Your task to perform on an android device: turn on javascript in the chrome app Image 0: 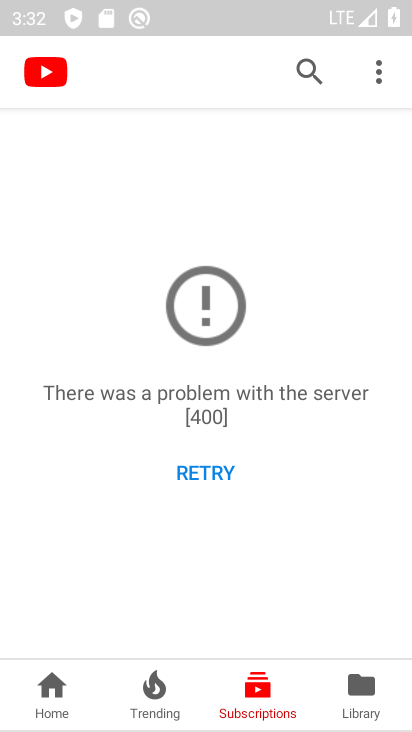
Step 0: press home button
Your task to perform on an android device: turn on javascript in the chrome app Image 1: 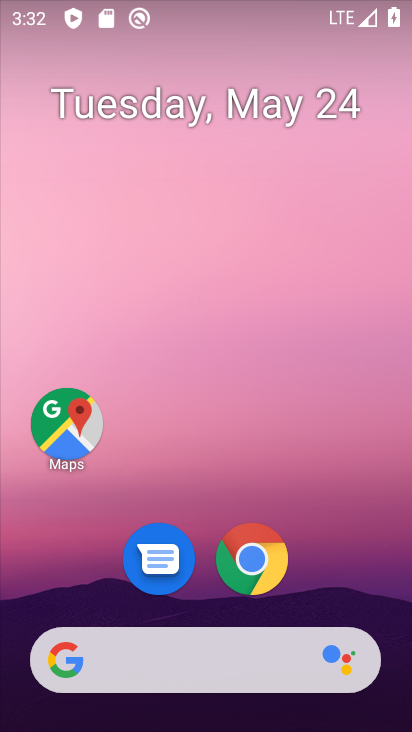
Step 1: click (256, 560)
Your task to perform on an android device: turn on javascript in the chrome app Image 2: 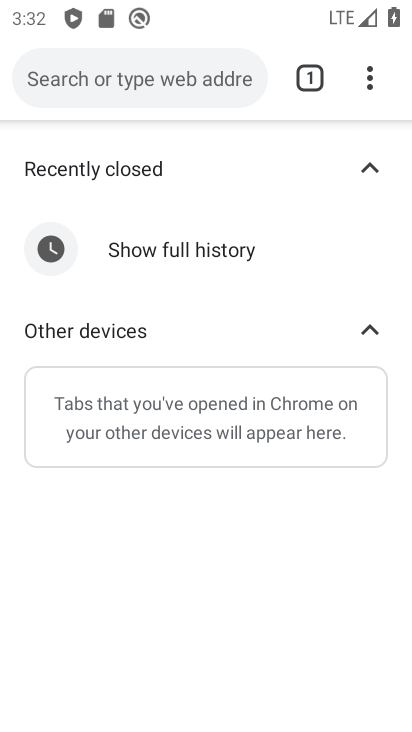
Step 2: click (370, 79)
Your task to perform on an android device: turn on javascript in the chrome app Image 3: 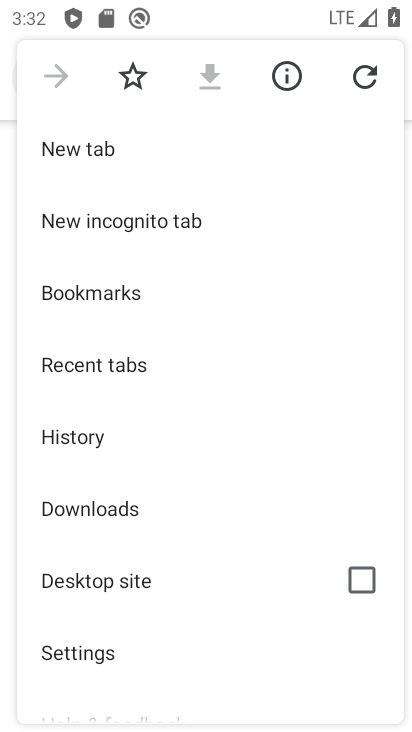
Step 3: click (96, 659)
Your task to perform on an android device: turn on javascript in the chrome app Image 4: 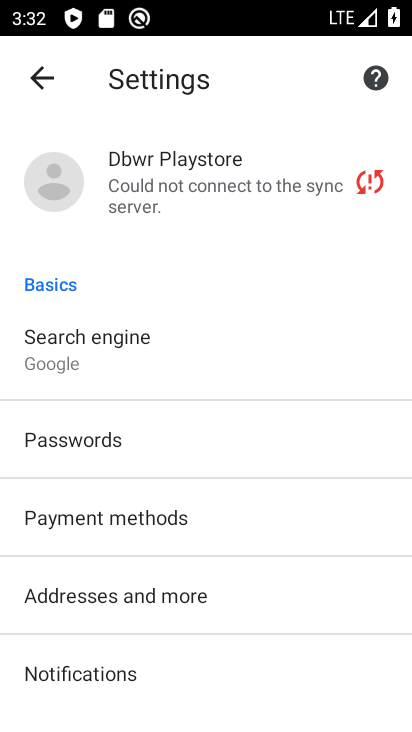
Step 4: drag from (133, 563) to (198, 433)
Your task to perform on an android device: turn on javascript in the chrome app Image 5: 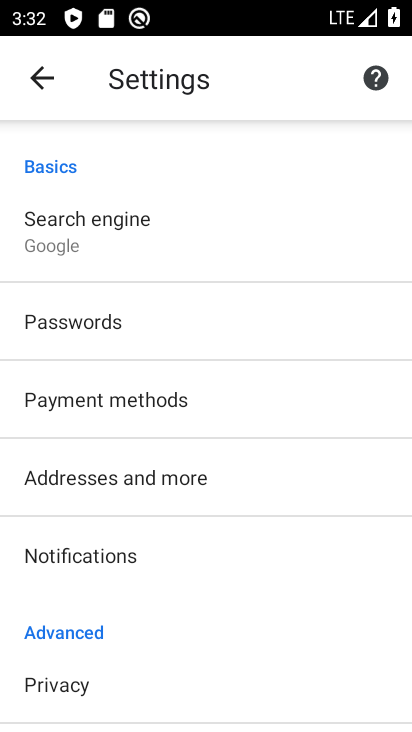
Step 5: drag from (143, 576) to (210, 489)
Your task to perform on an android device: turn on javascript in the chrome app Image 6: 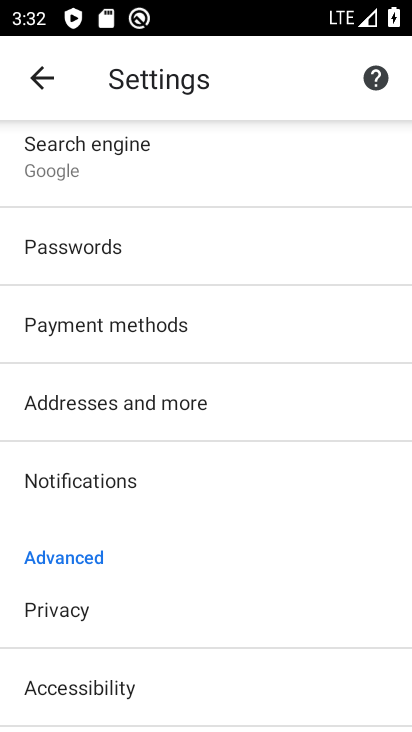
Step 6: drag from (136, 584) to (215, 478)
Your task to perform on an android device: turn on javascript in the chrome app Image 7: 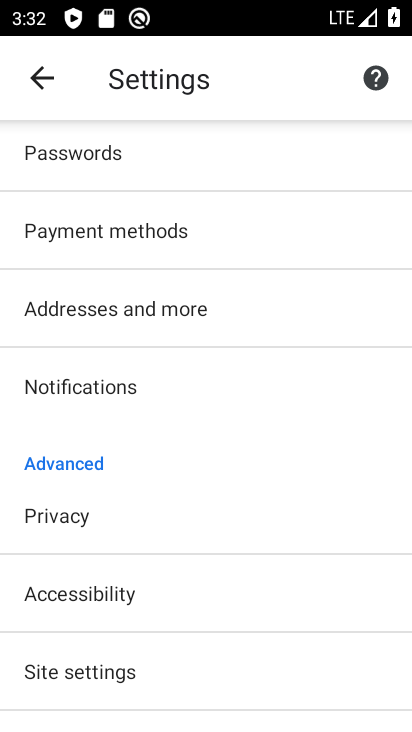
Step 7: drag from (158, 605) to (213, 498)
Your task to perform on an android device: turn on javascript in the chrome app Image 8: 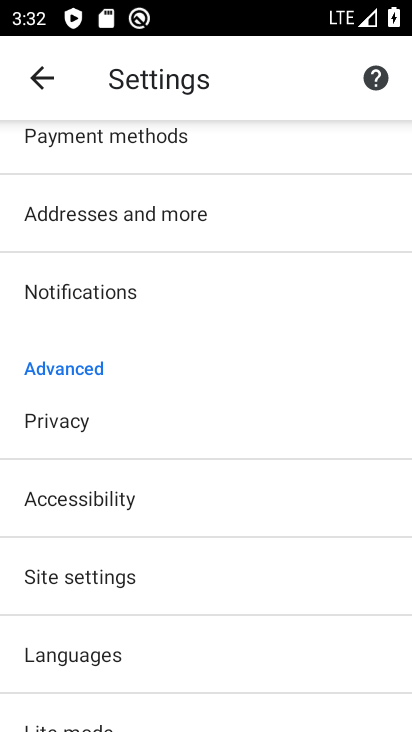
Step 8: click (107, 576)
Your task to perform on an android device: turn on javascript in the chrome app Image 9: 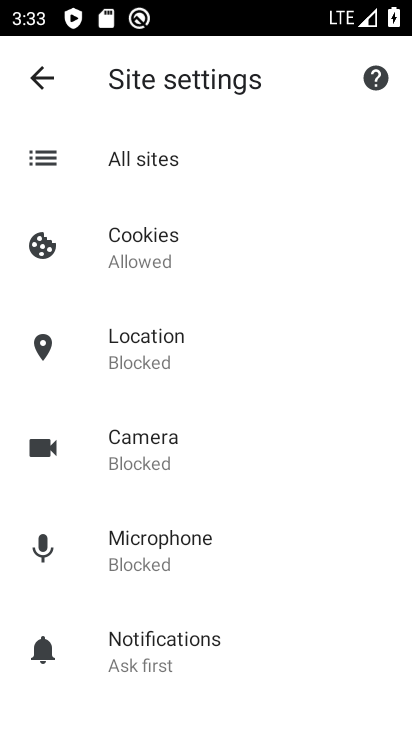
Step 9: drag from (170, 582) to (229, 469)
Your task to perform on an android device: turn on javascript in the chrome app Image 10: 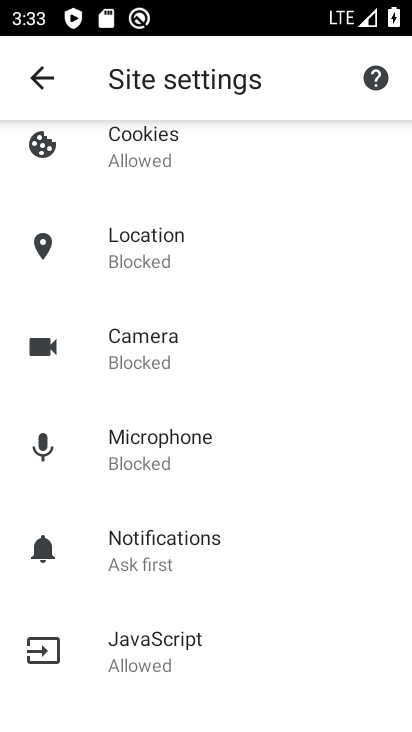
Step 10: drag from (196, 583) to (260, 500)
Your task to perform on an android device: turn on javascript in the chrome app Image 11: 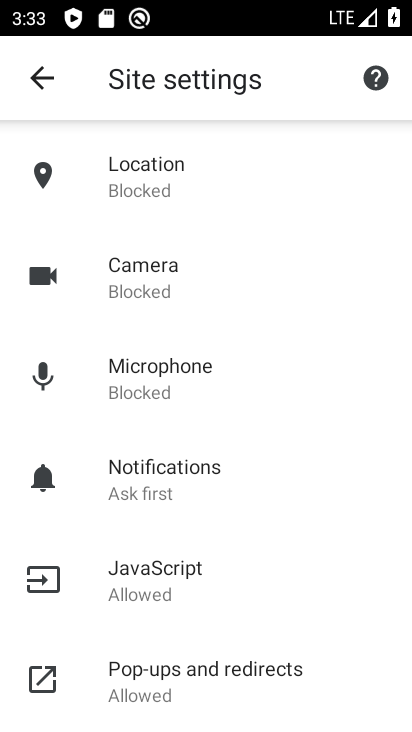
Step 11: click (199, 561)
Your task to perform on an android device: turn on javascript in the chrome app Image 12: 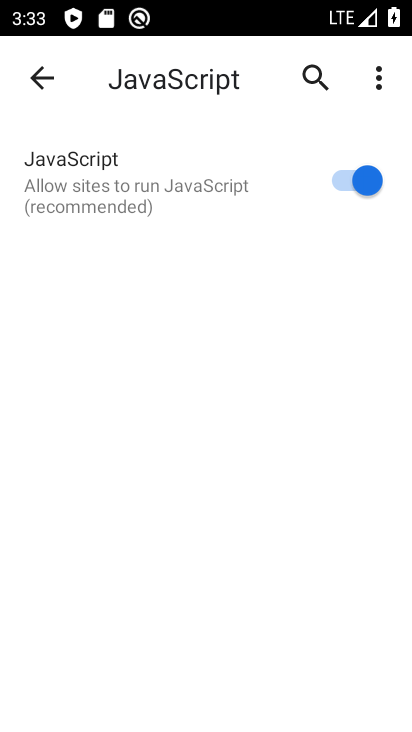
Step 12: task complete